Your task to perform on an android device: Go to Google Image 0: 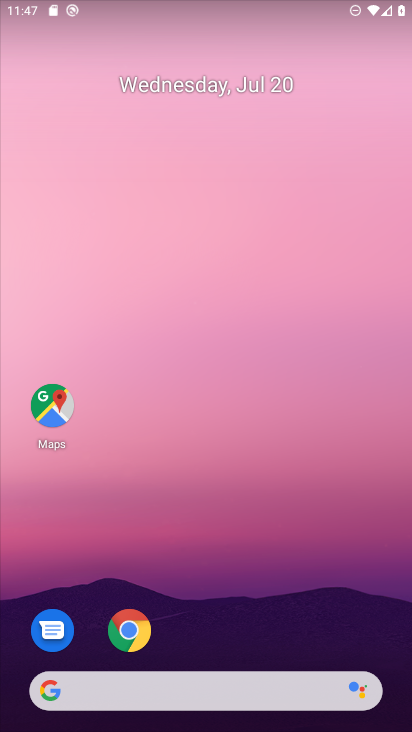
Step 0: click (47, 691)
Your task to perform on an android device: Go to Google Image 1: 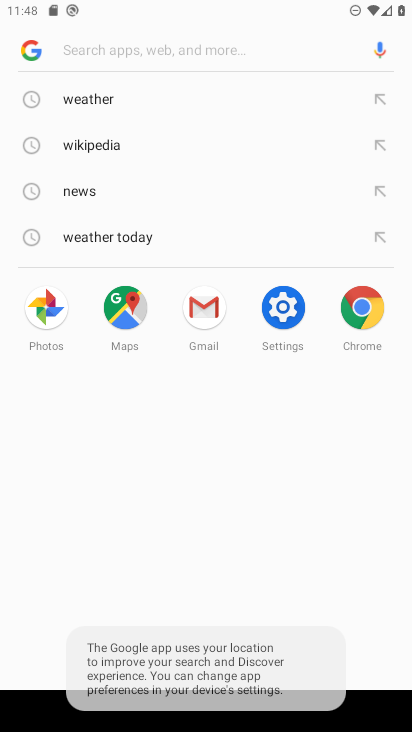
Step 1: click (31, 55)
Your task to perform on an android device: Go to Google Image 2: 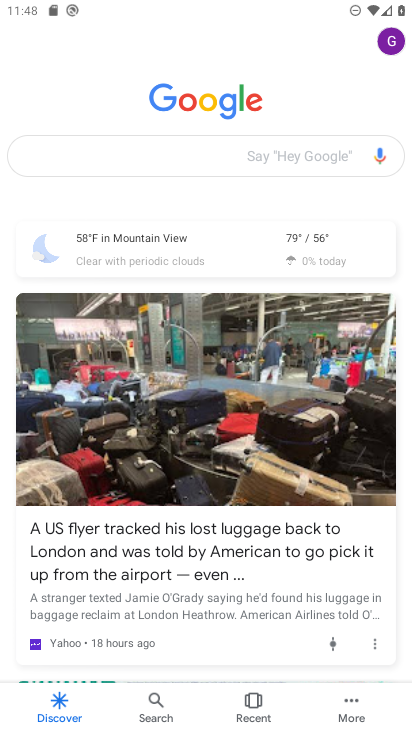
Step 2: task complete